Your task to perform on an android device: toggle translation in the chrome app Image 0: 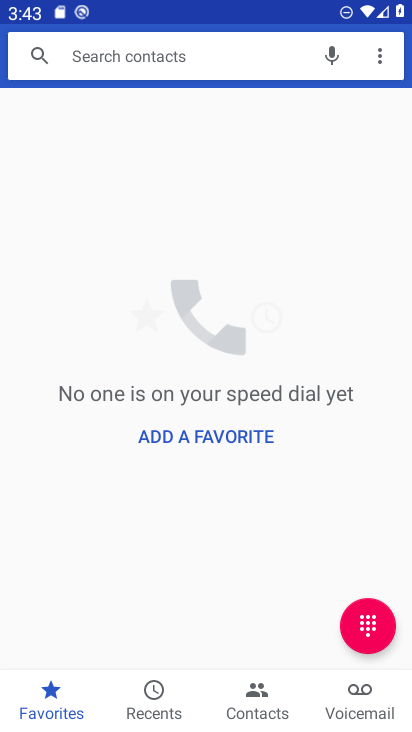
Step 0: press home button
Your task to perform on an android device: toggle translation in the chrome app Image 1: 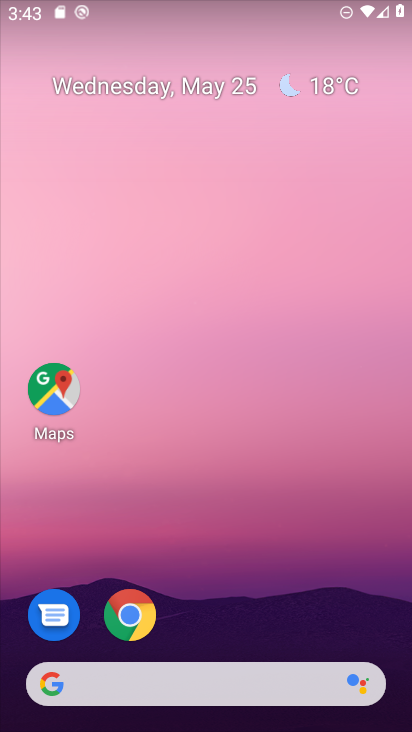
Step 1: click (138, 608)
Your task to perform on an android device: toggle translation in the chrome app Image 2: 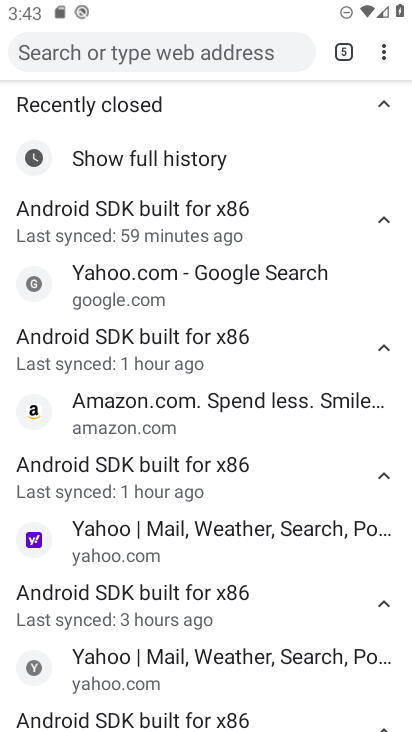
Step 2: click (383, 46)
Your task to perform on an android device: toggle translation in the chrome app Image 3: 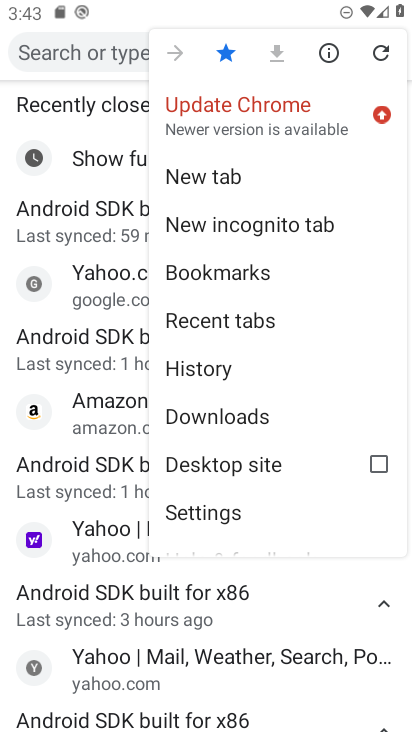
Step 3: click (239, 514)
Your task to perform on an android device: toggle translation in the chrome app Image 4: 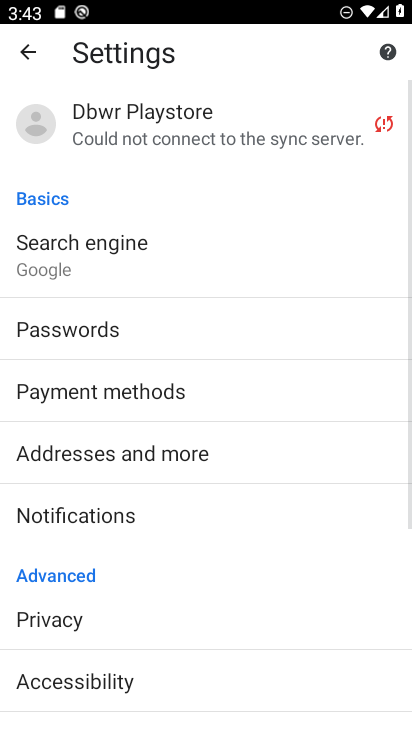
Step 4: drag from (243, 568) to (278, 232)
Your task to perform on an android device: toggle translation in the chrome app Image 5: 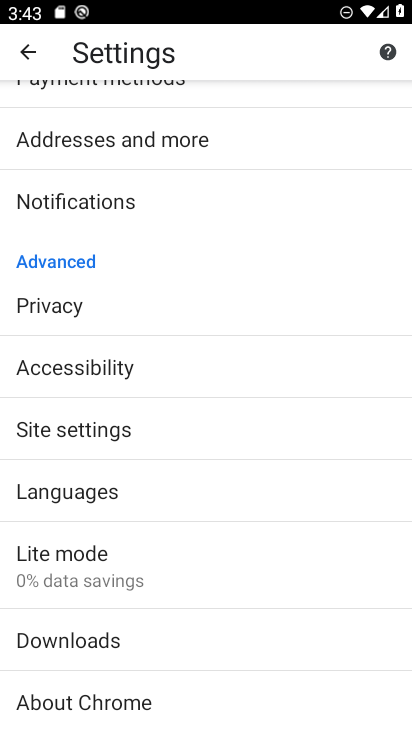
Step 5: click (195, 492)
Your task to perform on an android device: toggle translation in the chrome app Image 6: 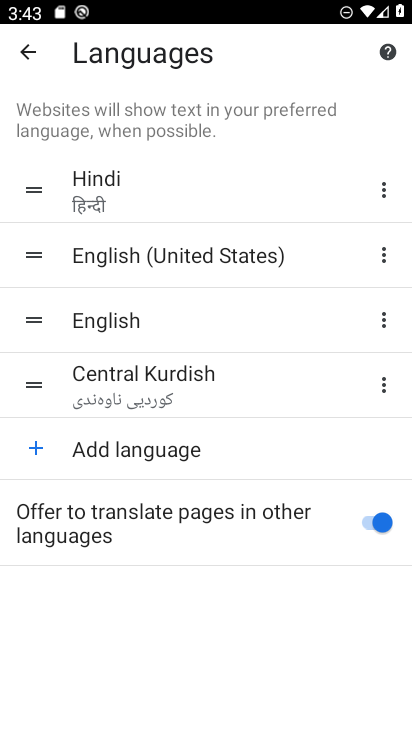
Step 6: click (371, 510)
Your task to perform on an android device: toggle translation in the chrome app Image 7: 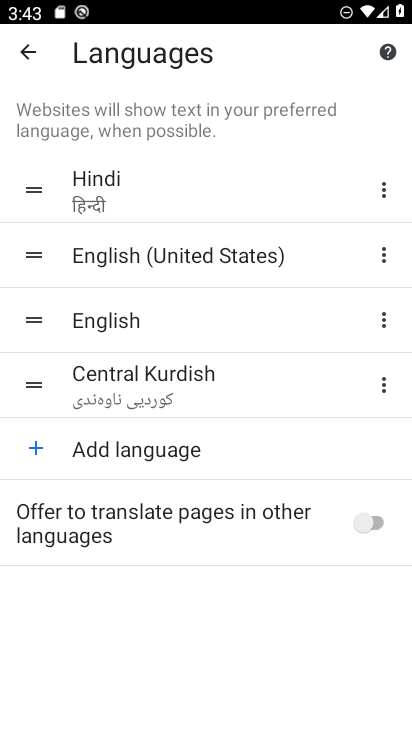
Step 7: task complete